Your task to perform on an android device: Open Yahoo.com Image 0: 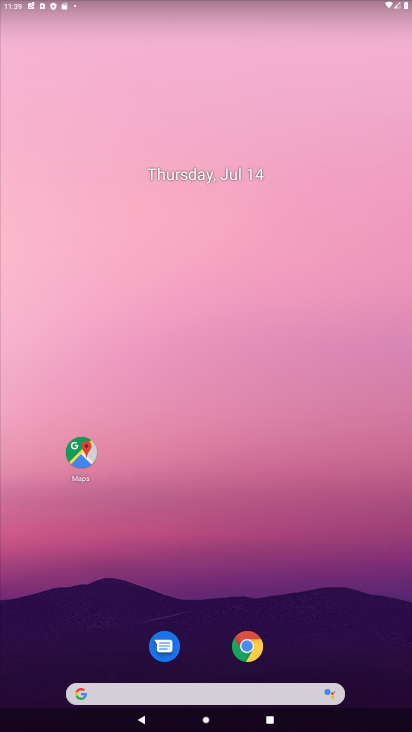
Step 0: click (258, 642)
Your task to perform on an android device: Open Yahoo.com Image 1: 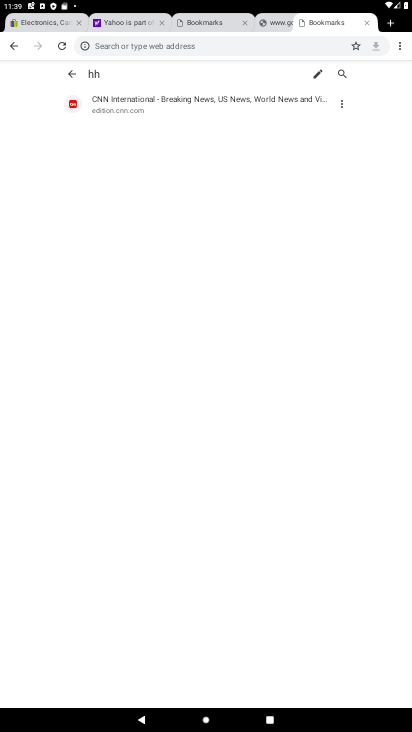
Step 1: click (387, 23)
Your task to perform on an android device: Open Yahoo.com Image 2: 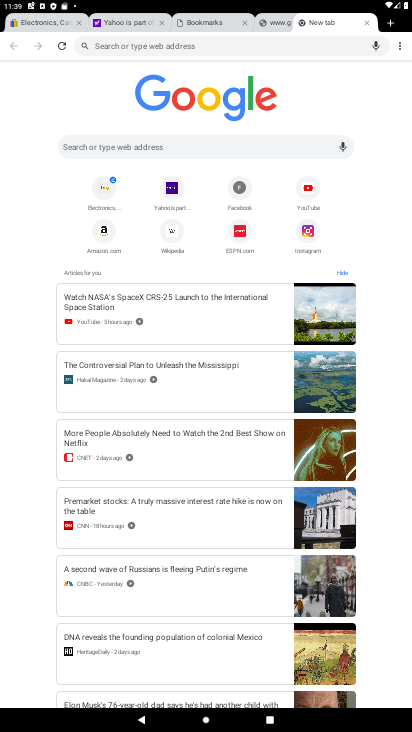
Step 2: click (170, 190)
Your task to perform on an android device: Open Yahoo.com Image 3: 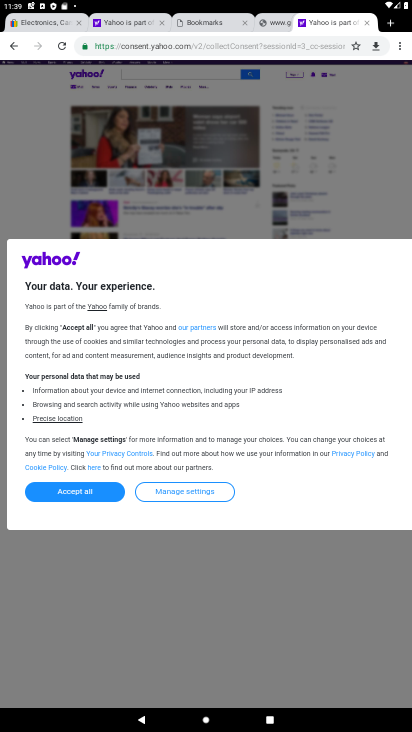
Step 3: task complete